Your task to perform on an android device: What's the weather? Image 0: 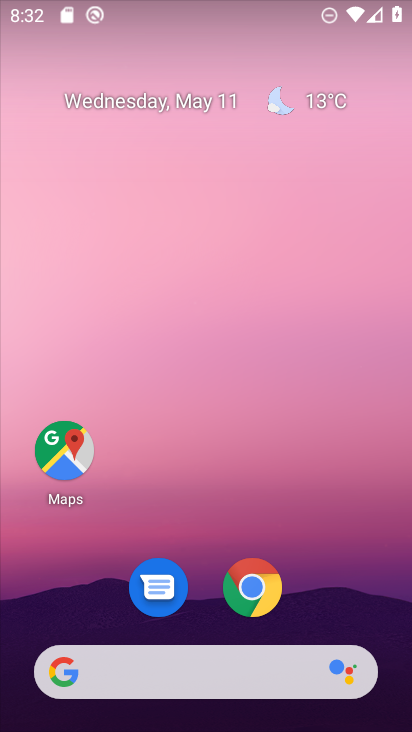
Step 0: click (330, 103)
Your task to perform on an android device: What's the weather? Image 1: 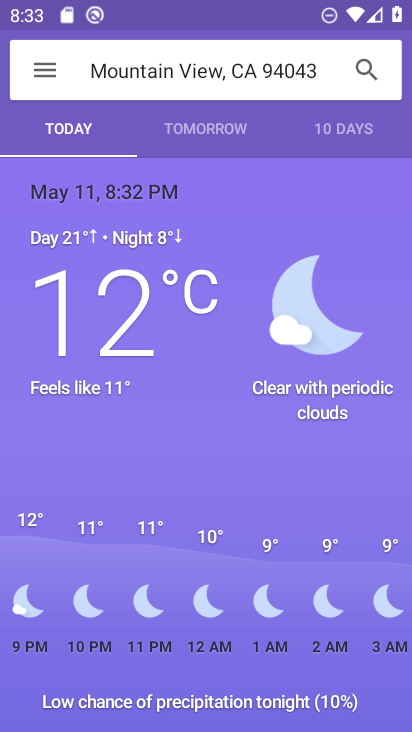
Step 1: task complete